Your task to perform on an android device: empty trash in google photos Image 0: 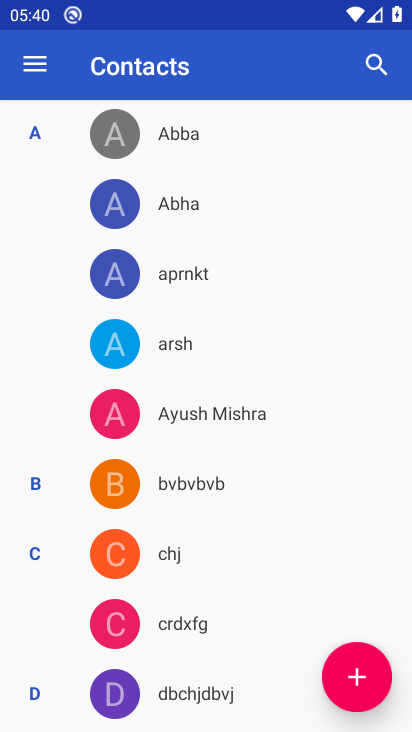
Step 0: press back button
Your task to perform on an android device: empty trash in google photos Image 1: 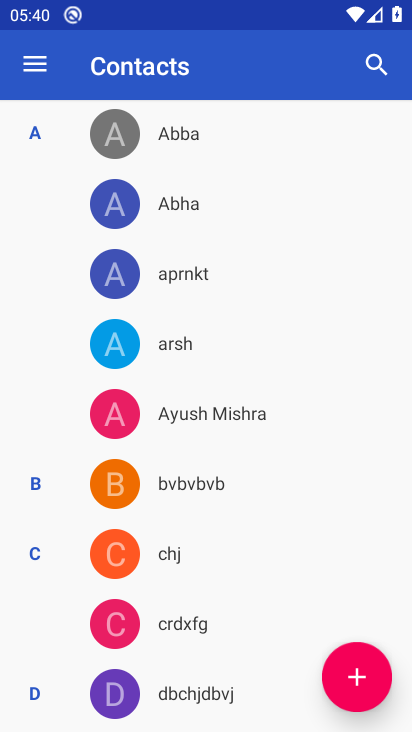
Step 1: press back button
Your task to perform on an android device: empty trash in google photos Image 2: 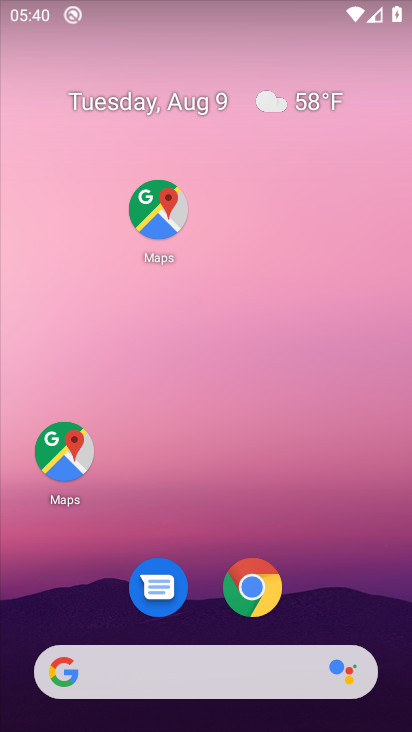
Step 2: click (163, 193)
Your task to perform on an android device: empty trash in google photos Image 3: 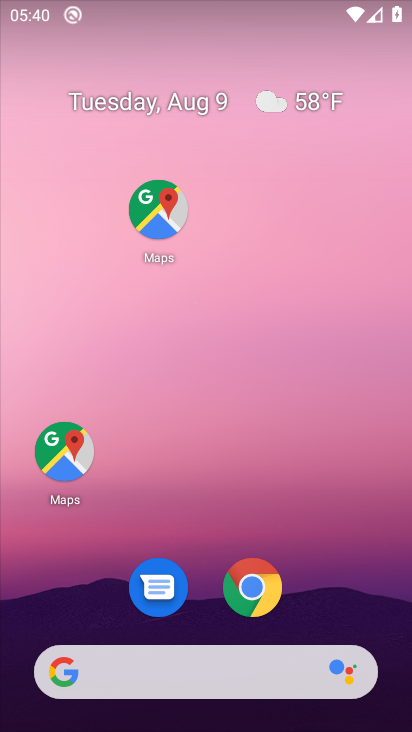
Step 3: drag from (217, 477) to (187, 195)
Your task to perform on an android device: empty trash in google photos Image 4: 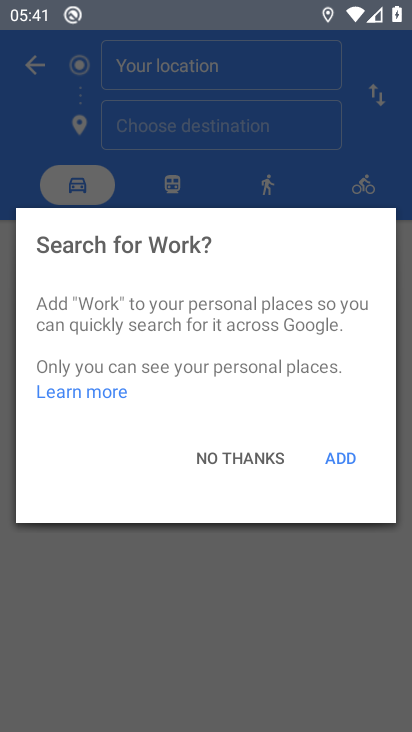
Step 4: click (221, 455)
Your task to perform on an android device: empty trash in google photos Image 5: 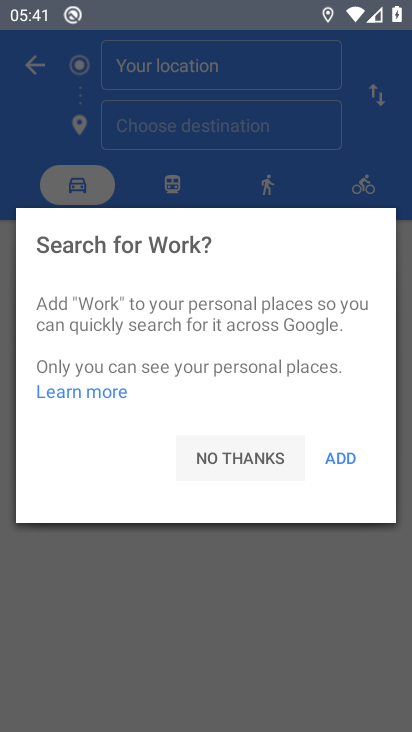
Step 5: click (221, 455)
Your task to perform on an android device: empty trash in google photos Image 6: 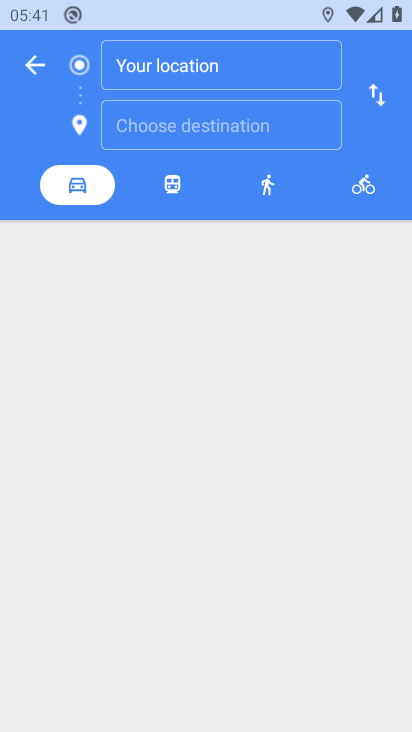
Step 6: click (226, 453)
Your task to perform on an android device: empty trash in google photos Image 7: 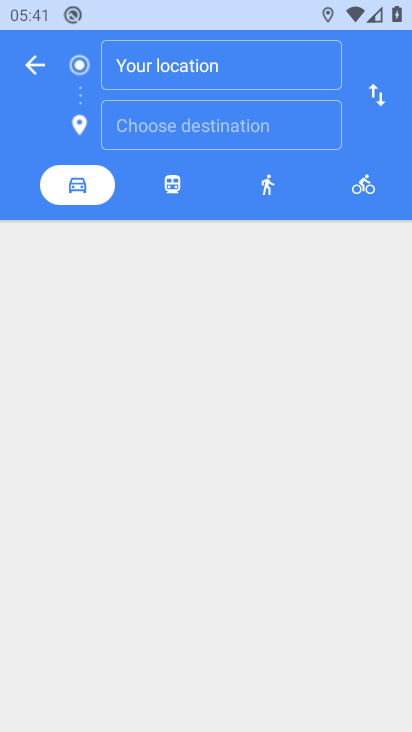
Step 7: click (14, 50)
Your task to perform on an android device: empty trash in google photos Image 8: 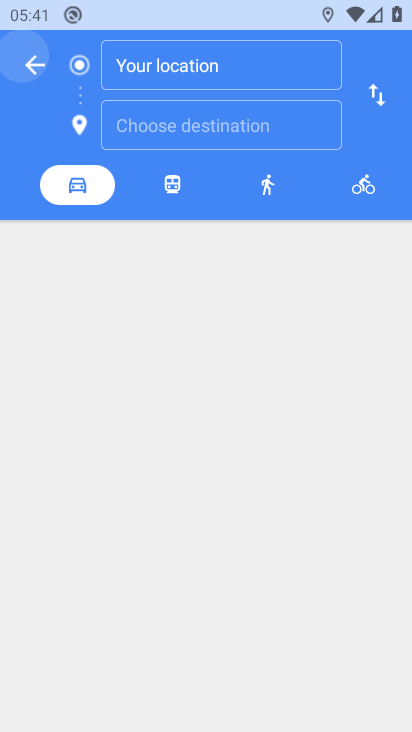
Step 8: click (33, 74)
Your task to perform on an android device: empty trash in google photos Image 9: 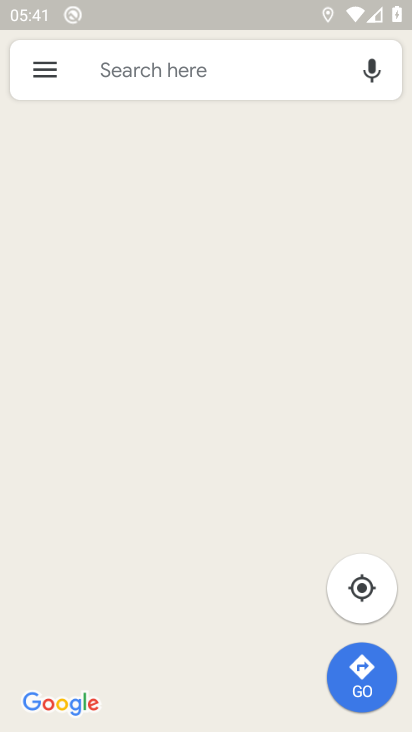
Step 9: press back button
Your task to perform on an android device: empty trash in google photos Image 10: 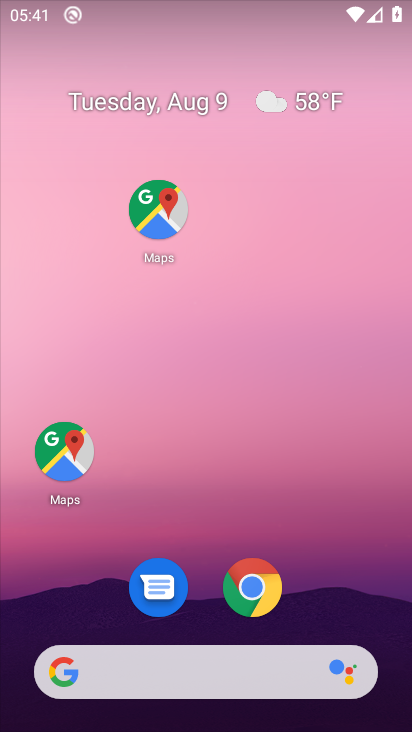
Step 10: drag from (180, 585) to (161, 292)
Your task to perform on an android device: empty trash in google photos Image 11: 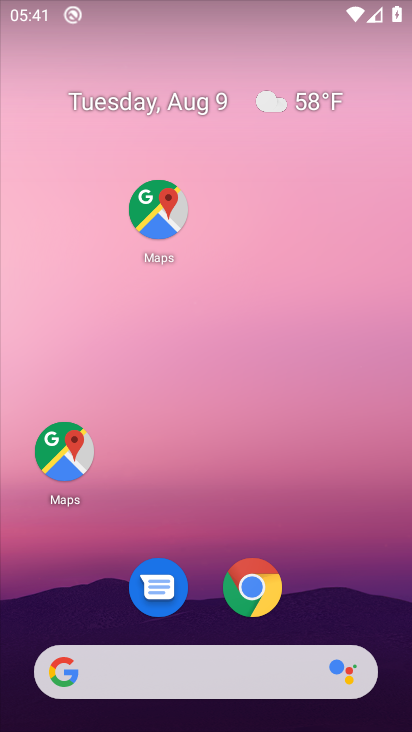
Step 11: drag from (218, 595) to (169, 305)
Your task to perform on an android device: empty trash in google photos Image 12: 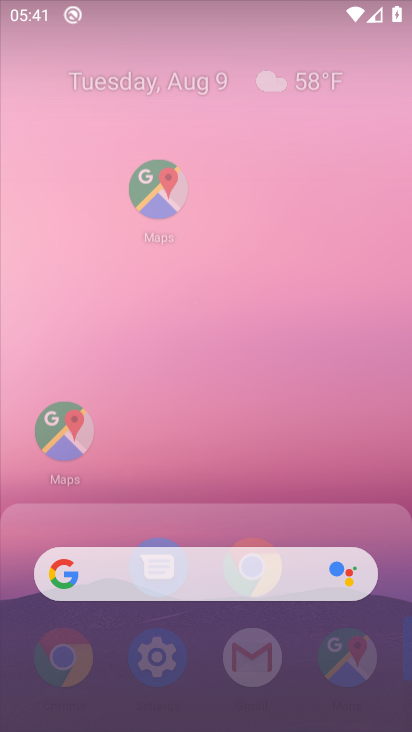
Step 12: drag from (218, 516) to (186, 285)
Your task to perform on an android device: empty trash in google photos Image 13: 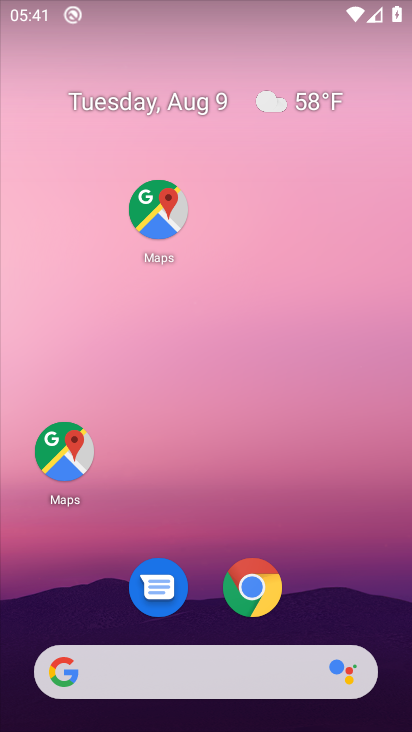
Step 13: drag from (201, 313) to (161, 154)
Your task to perform on an android device: empty trash in google photos Image 14: 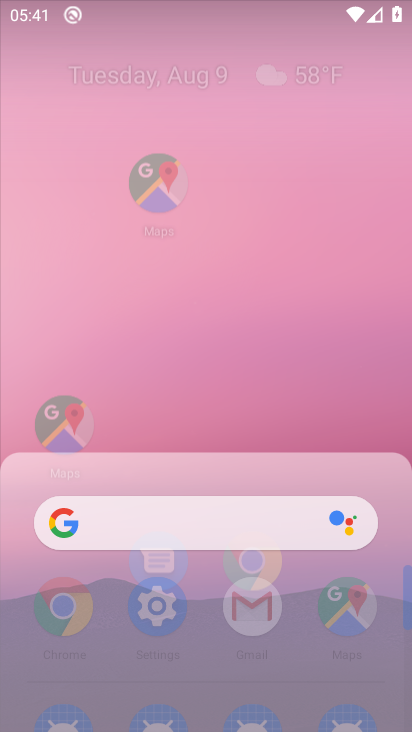
Step 14: drag from (170, 433) to (154, 133)
Your task to perform on an android device: empty trash in google photos Image 15: 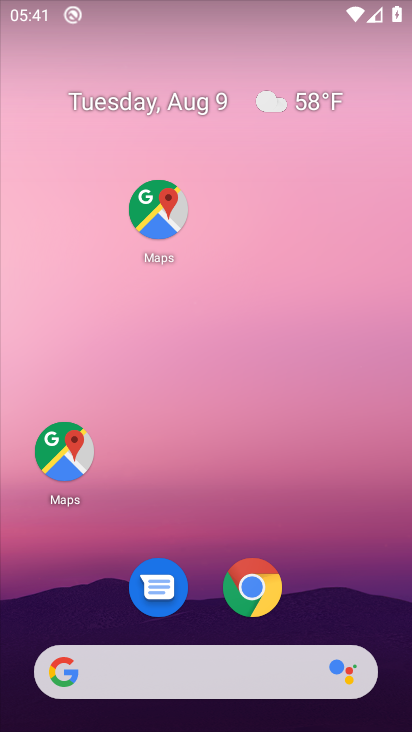
Step 15: drag from (177, 467) to (133, 93)
Your task to perform on an android device: empty trash in google photos Image 16: 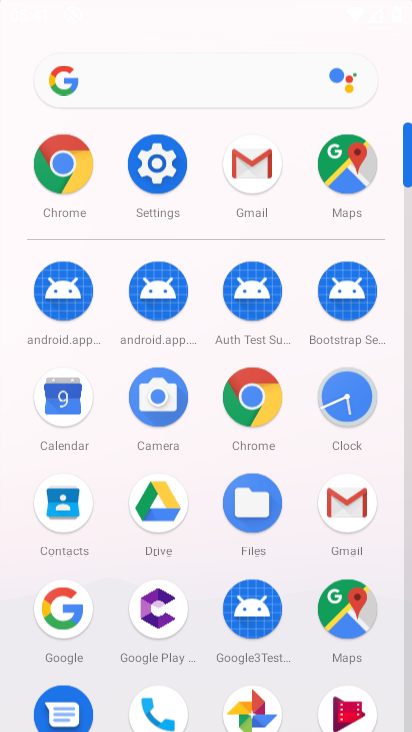
Step 16: drag from (206, 498) to (151, 29)
Your task to perform on an android device: empty trash in google photos Image 17: 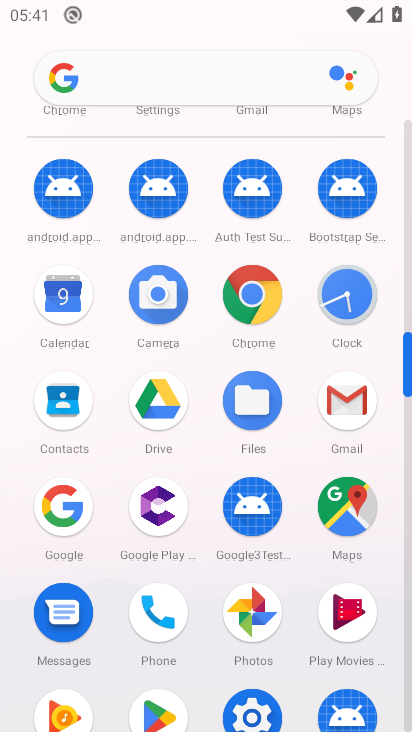
Step 17: click (248, 614)
Your task to perform on an android device: empty trash in google photos Image 18: 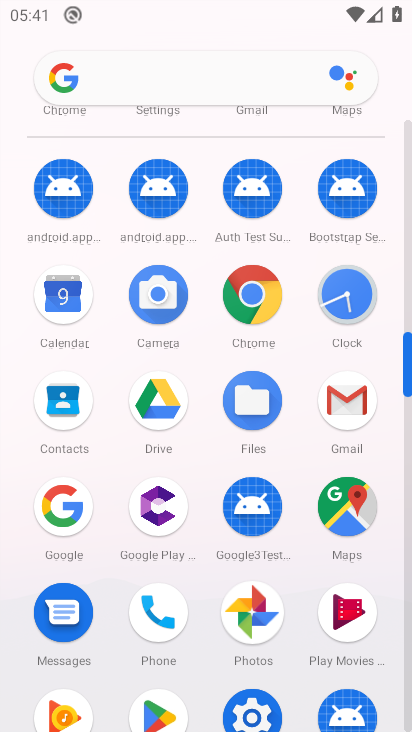
Step 18: click (248, 613)
Your task to perform on an android device: empty trash in google photos Image 19: 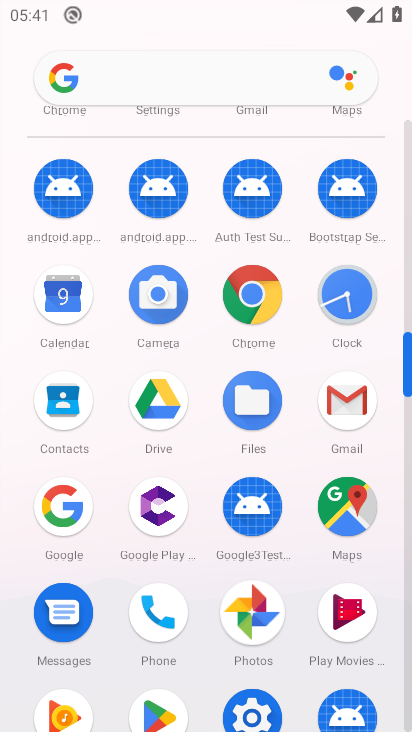
Step 19: click (248, 613)
Your task to perform on an android device: empty trash in google photos Image 20: 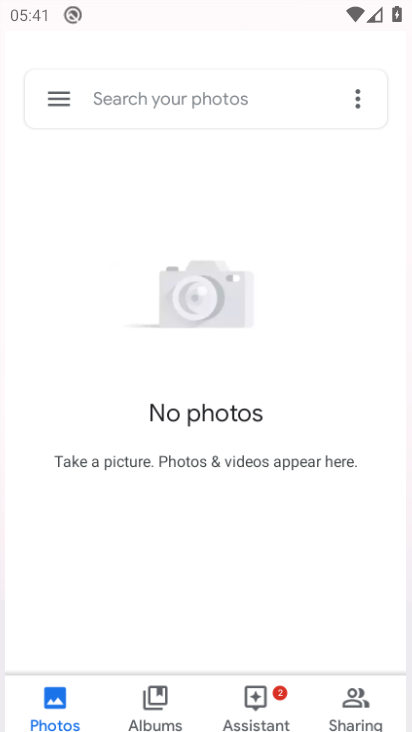
Step 20: click (248, 612)
Your task to perform on an android device: empty trash in google photos Image 21: 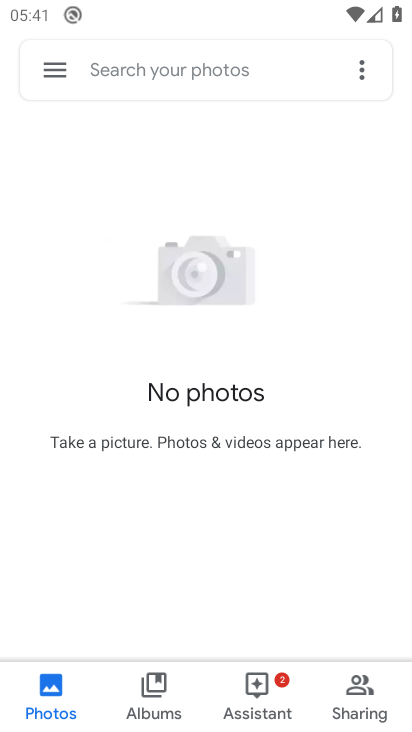
Step 21: click (249, 611)
Your task to perform on an android device: empty trash in google photos Image 22: 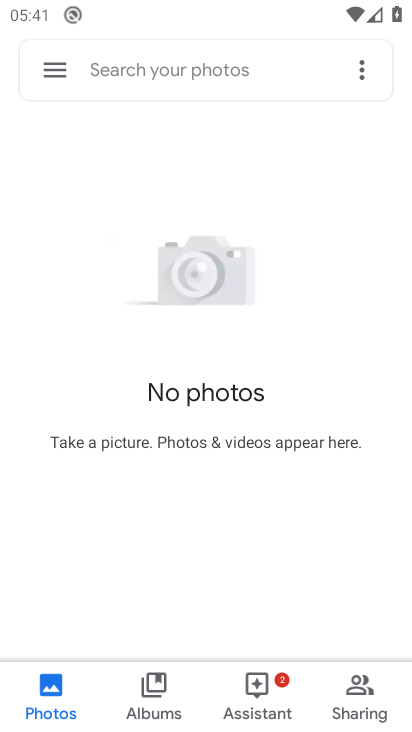
Step 22: click (61, 70)
Your task to perform on an android device: empty trash in google photos Image 23: 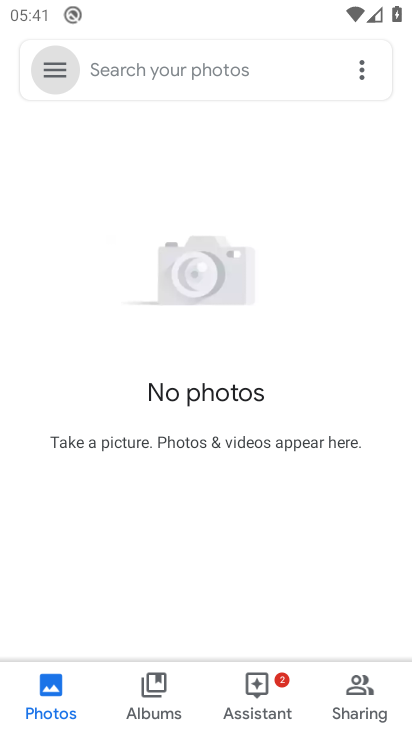
Step 23: click (61, 70)
Your task to perform on an android device: empty trash in google photos Image 24: 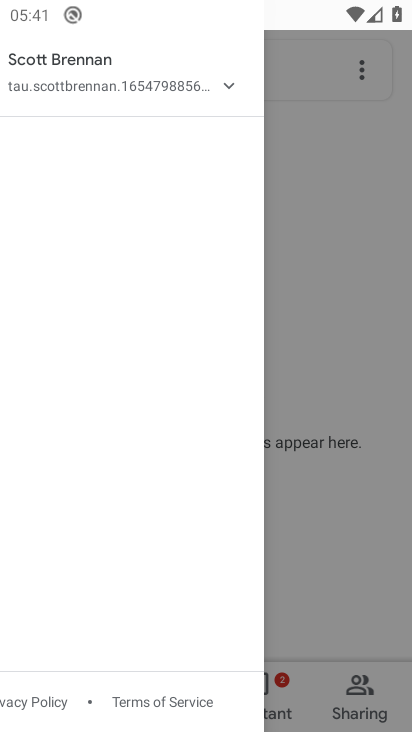
Step 24: click (61, 70)
Your task to perform on an android device: empty trash in google photos Image 25: 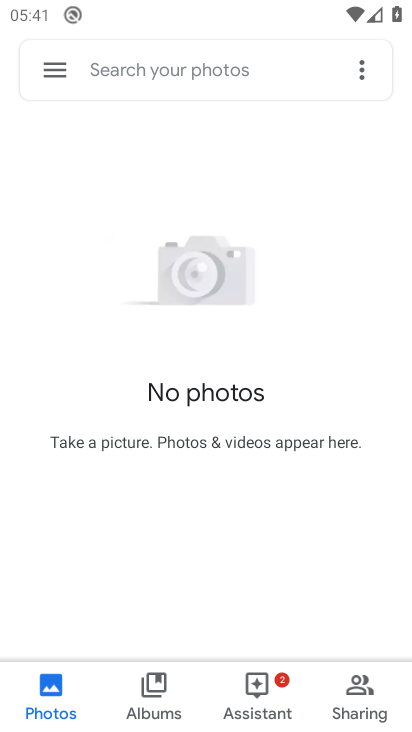
Step 25: click (45, 57)
Your task to perform on an android device: empty trash in google photos Image 26: 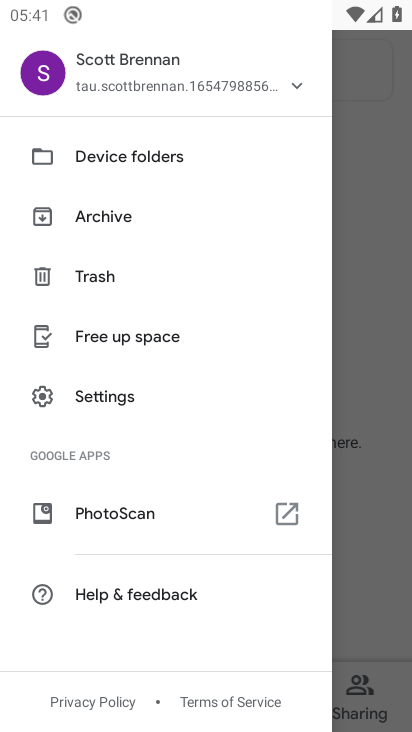
Step 26: click (101, 267)
Your task to perform on an android device: empty trash in google photos Image 27: 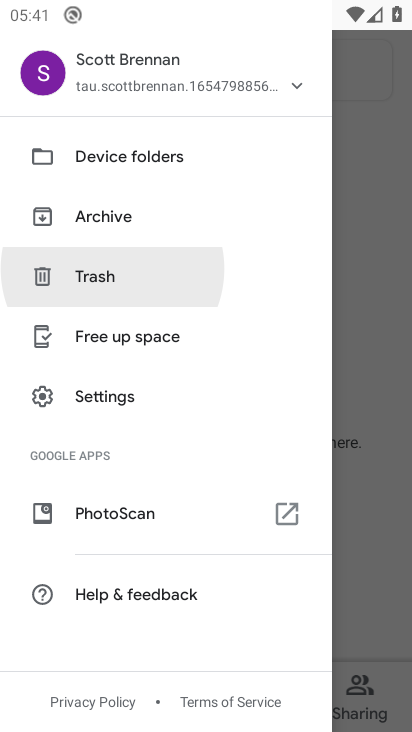
Step 27: click (102, 267)
Your task to perform on an android device: empty trash in google photos Image 28: 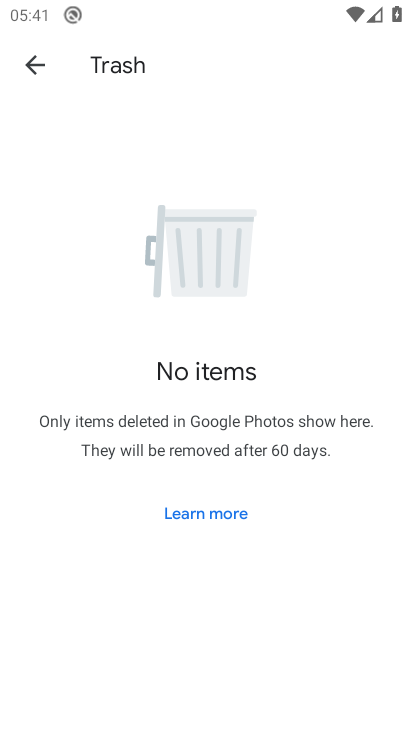
Step 28: task complete